Your task to perform on an android device: delete the emails in spam in the gmail app Image 0: 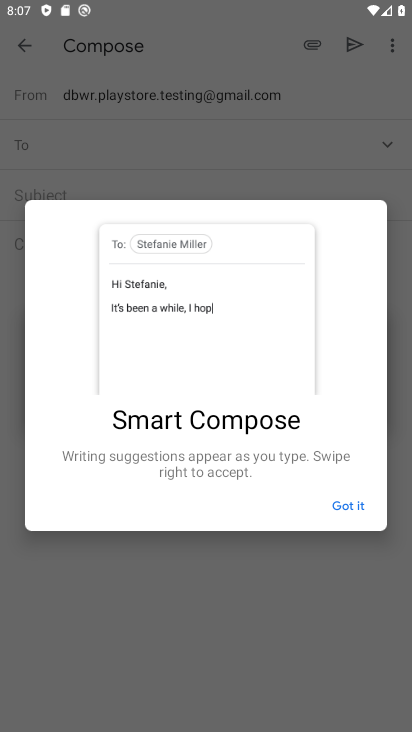
Step 0: press home button
Your task to perform on an android device: delete the emails in spam in the gmail app Image 1: 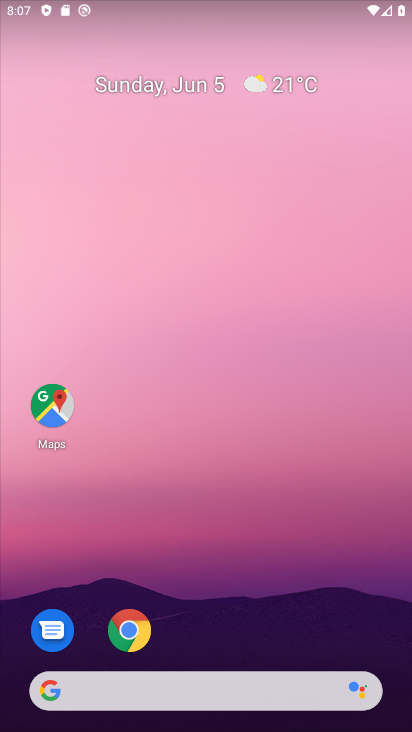
Step 1: drag from (212, 591) to (353, 192)
Your task to perform on an android device: delete the emails in spam in the gmail app Image 2: 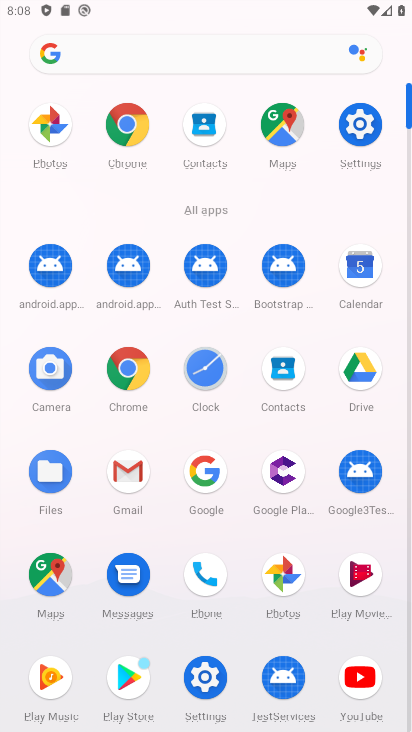
Step 2: click (124, 484)
Your task to perform on an android device: delete the emails in spam in the gmail app Image 3: 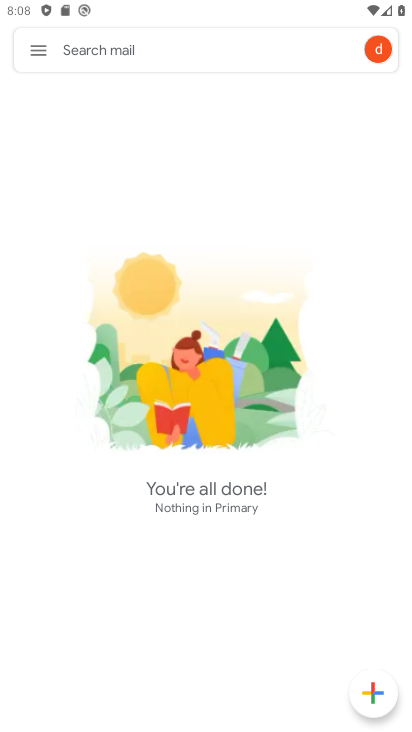
Step 3: click (39, 44)
Your task to perform on an android device: delete the emails in spam in the gmail app Image 4: 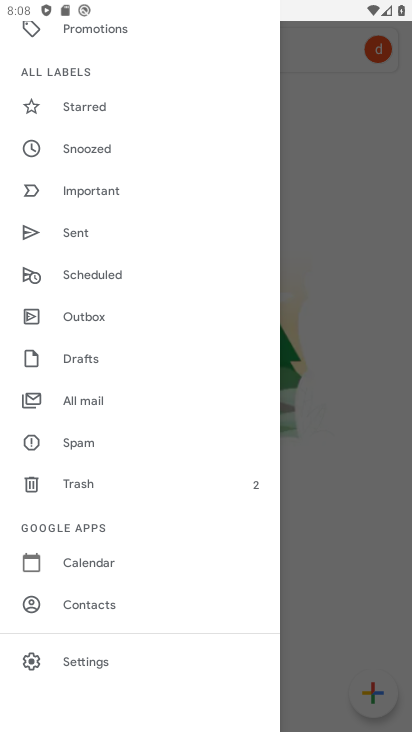
Step 4: click (77, 403)
Your task to perform on an android device: delete the emails in spam in the gmail app Image 5: 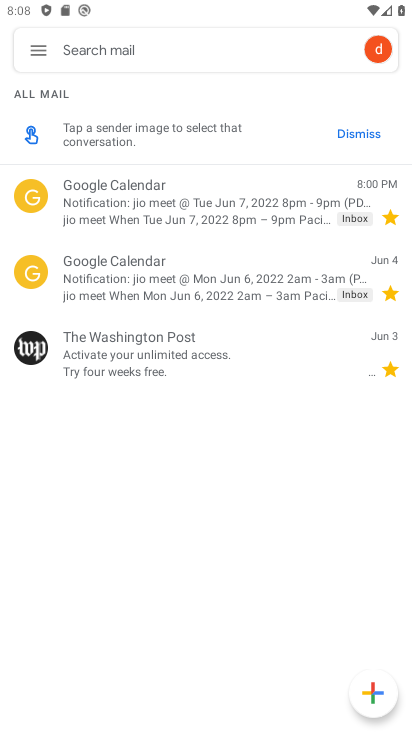
Step 5: click (46, 44)
Your task to perform on an android device: delete the emails in spam in the gmail app Image 6: 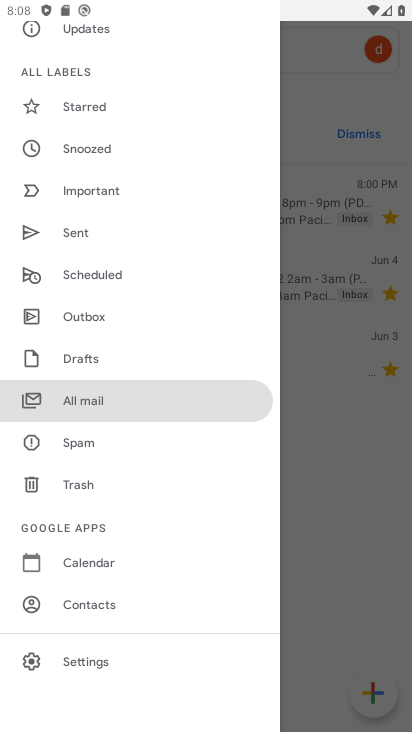
Step 6: click (95, 458)
Your task to perform on an android device: delete the emails in spam in the gmail app Image 7: 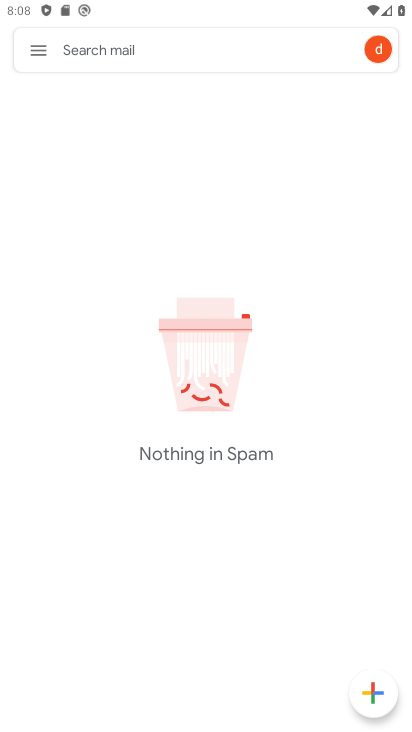
Step 7: task complete